Your task to perform on an android device: Go to settings Image 0: 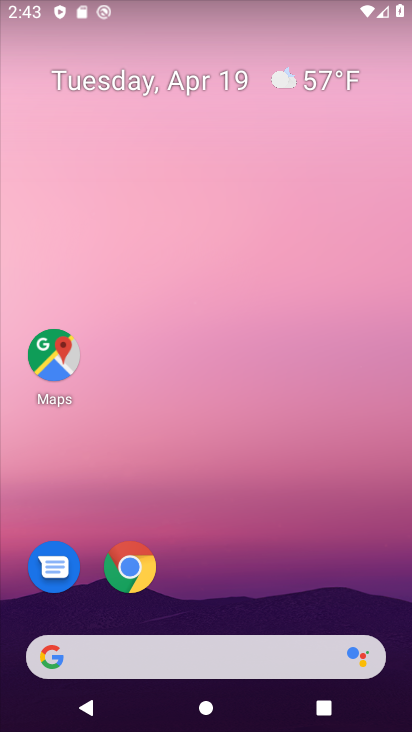
Step 0: drag from (381, 586) to (356, 107)
Your task to perform on an android device: Go to settings Image 1: 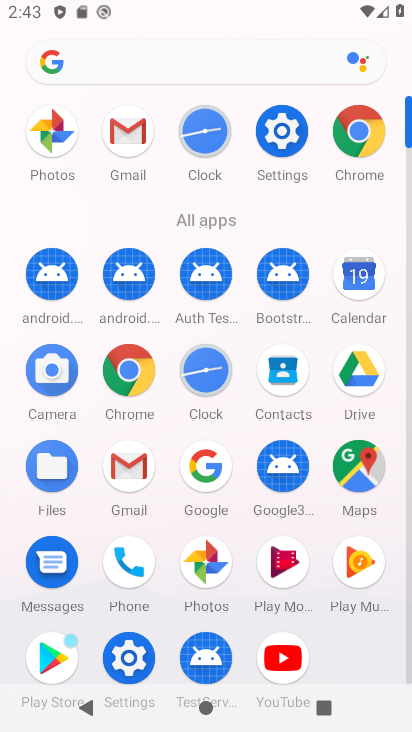
Step 1: click (284, 131)
Your task to perform on an android device: Go to settings Image 2: 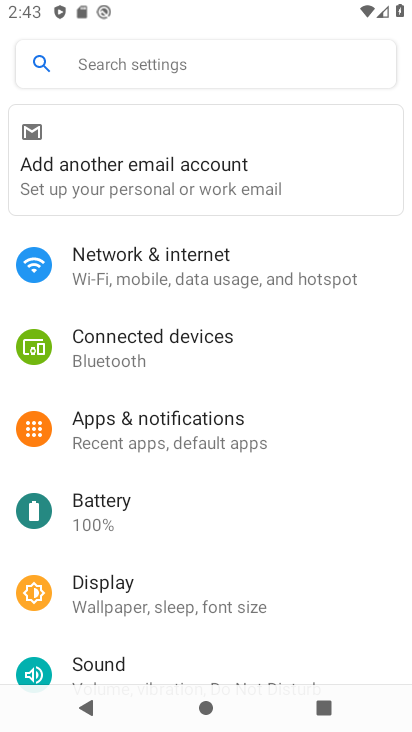
Step 2: task complete